Your task to perform on an android device: open the mobile data screen to see how much data has been used Image 0: 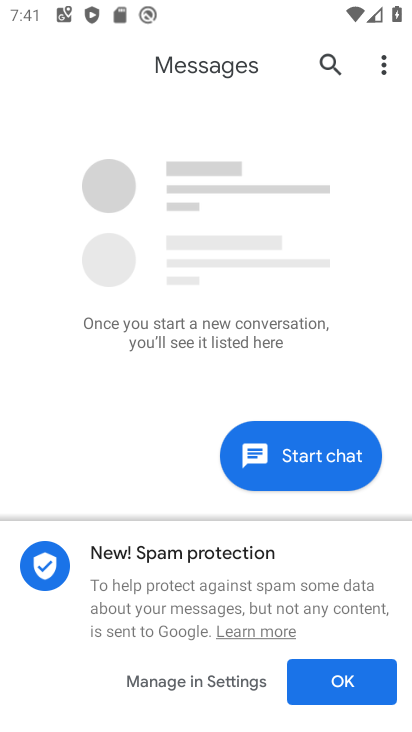
Step 0: press home button
Your task to perform on an android device: open the mobile data screen to see how much data has been used Image 1: 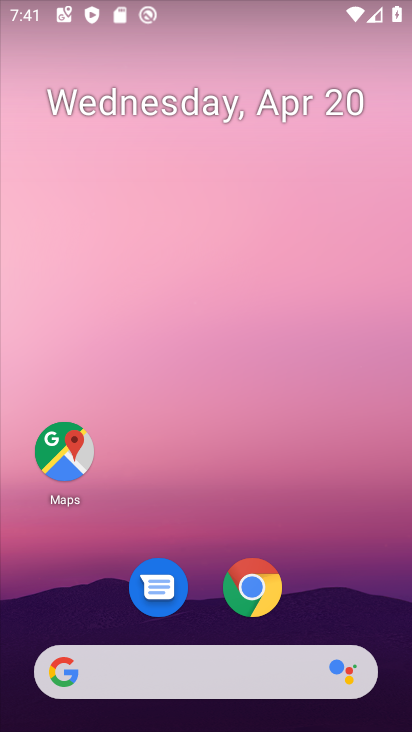
Step 1: drag from (350, 590) to (353, 137)
Your task to perform on an android device: open the mobile data screen to see how much data has been used Image 2: 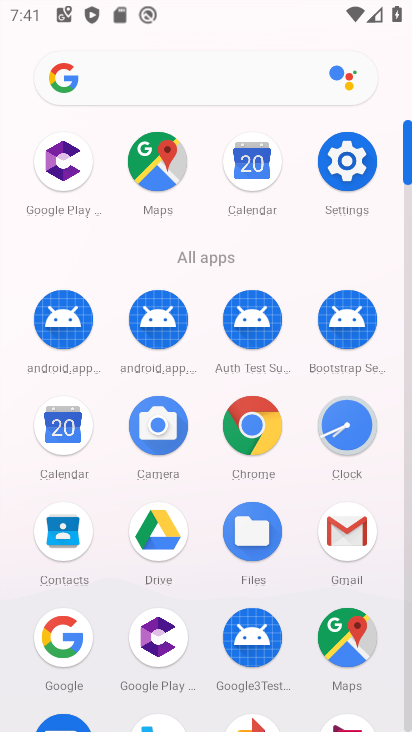
Step 2: click (342, 158)
Your task to perform on an android device: open the mobile data screen to see how much data has been used Image 3: 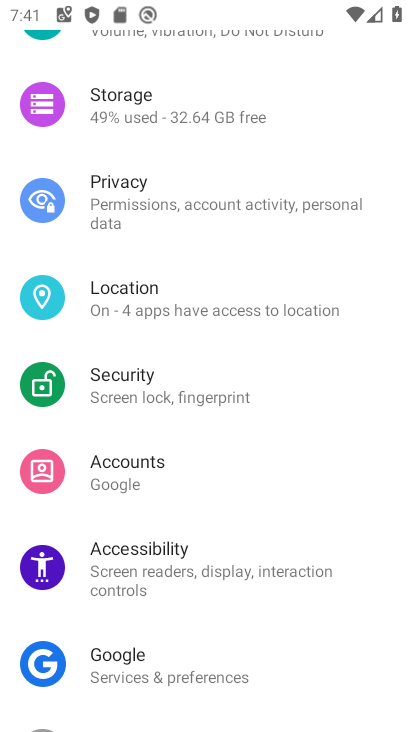
Step 3: drag from (353, 610) to (361, 402)
Your task to perform on an android device: open the mobile data screen to see how much data has been used Image 4: 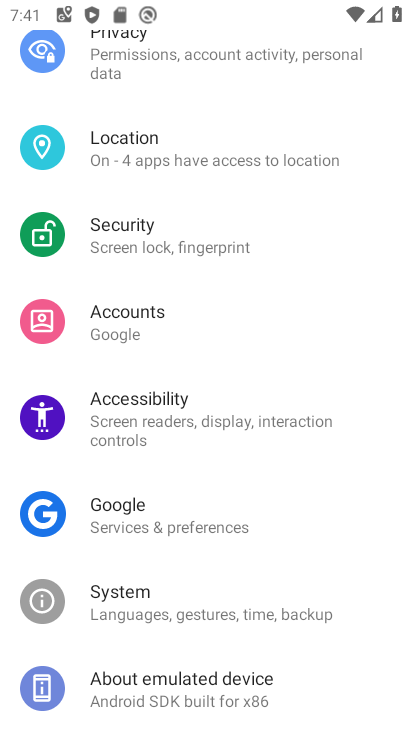
Step 4: drag from (362, 657) to (365, 405)
Your task to perform on an android device: open the mobile data screen to see how much data has been used Image 5: 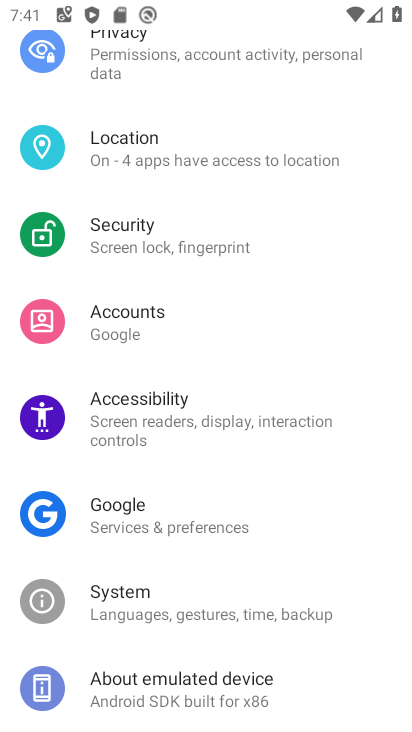
Step 5: drag from (363, 357) to (367, 540)
Your task to perform on an android device: open the mobile data screen to see how much data has been used Image 6: 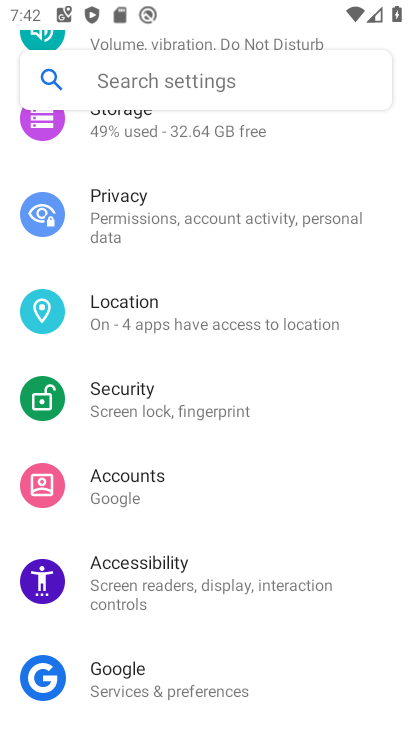
Step 6: drag from (374, 387) to (364, 546)
Your task to perform on an android device: open the mobile data screen to see how much data has been used Image 7: 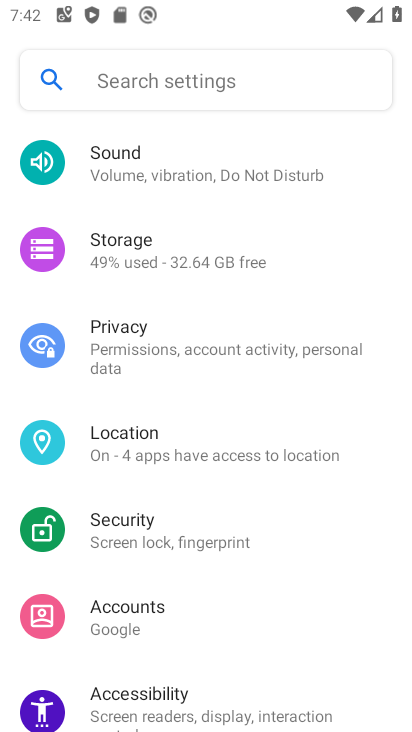
Step 7: drag from (383, 308) to (364, 502)
Your task to perform on an android device: open the mobile data screen to see how much data has been used Image 8: 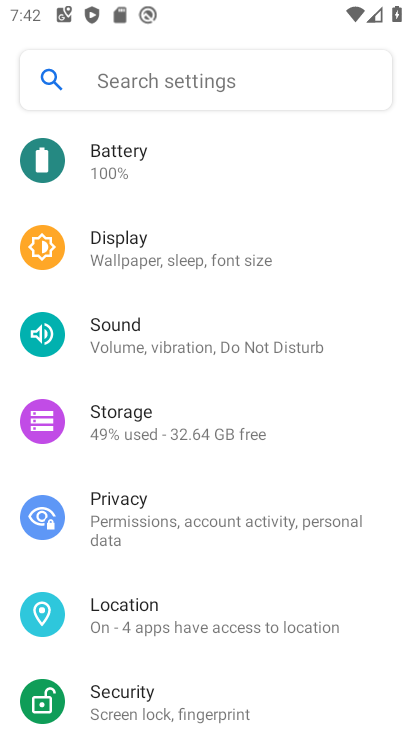
Step 8: drag from (382, 322) to (375, 469)
Your task to perform on an android device: open the mobile data screen to see how much data has been used Image 9: 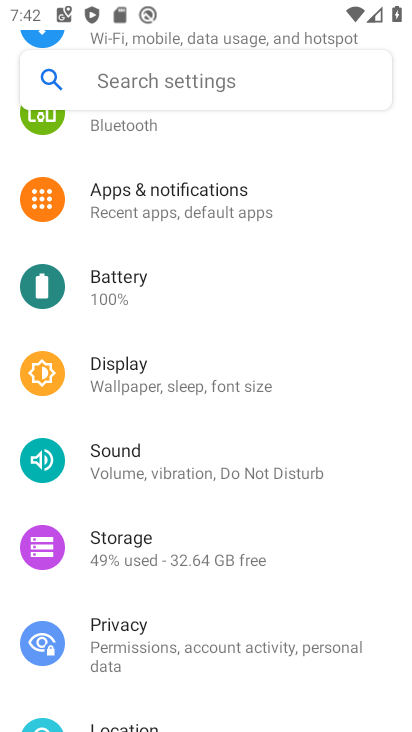
Step 9: drag from (373, 303) to (380, 459)
Your task to perform on an android device: open the mobile data screen to see how much data has been used Image 10: 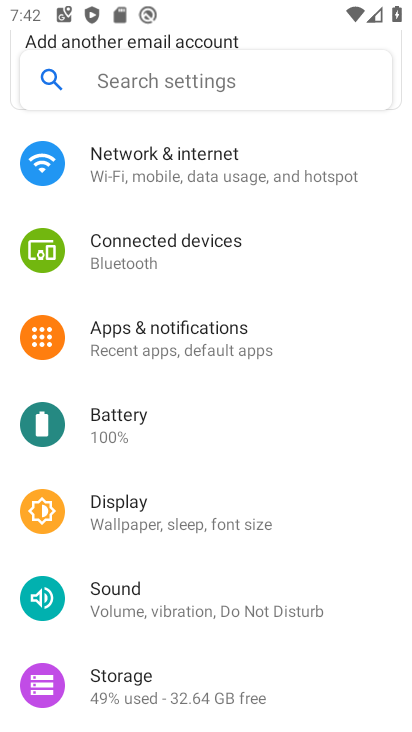
Step 10: drag from (377, 304) to (366, 522)
Your task to perform on an android device: open the mobile data screen to see how much data has been used Image 11: 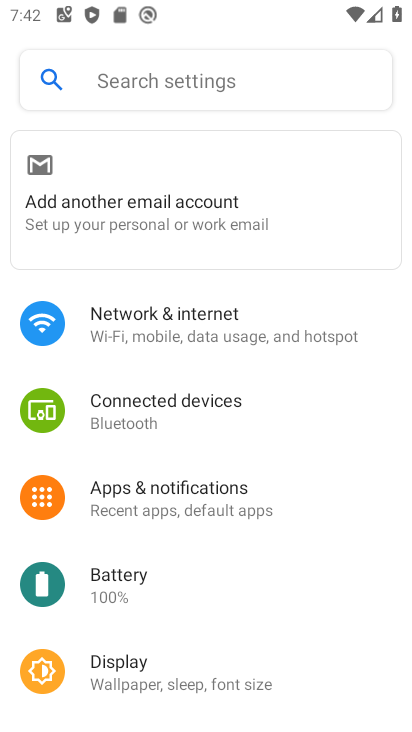
Step 11: click (254, 319)
Your task to perform on an android device: open the mobile data screen to see how much data has been used Image 12: 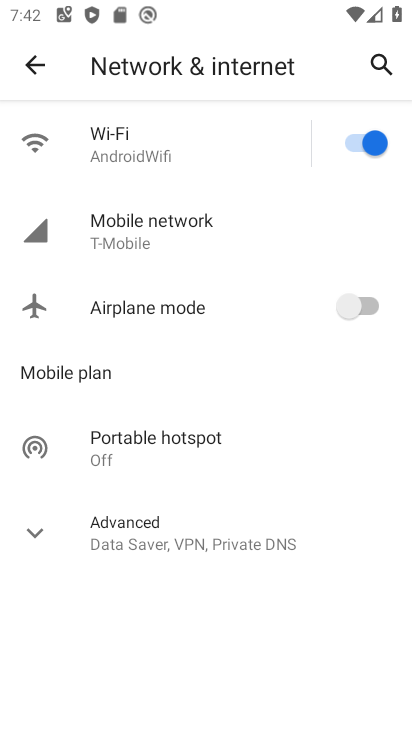
Step 12: click (175, 236)
Your task to perform on an android device: open the mobile data screen to see how much data has been used Image 13: 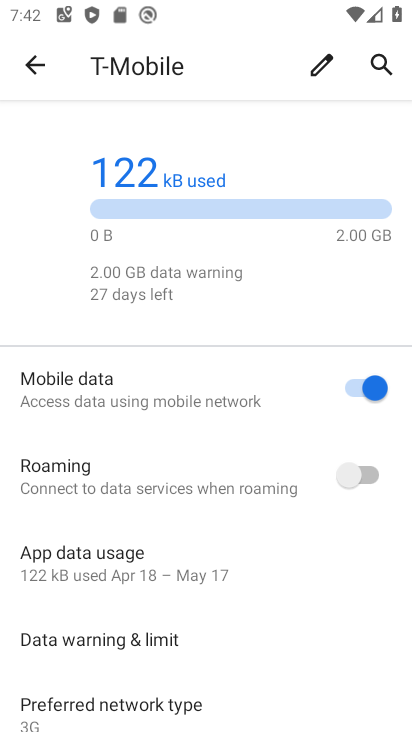
Step 13: drag from (276, 584) to (266, 346)
Your task to perform on an android device: open the mobile data screen to see how much data has been used Image 14: 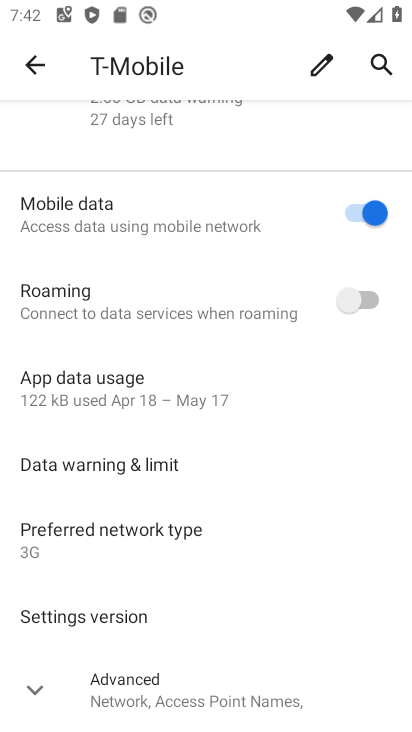
Step 14: click (147, 393)
Your task to perform on an android device: open the mobile data screen to see how much data has been used Image 15: 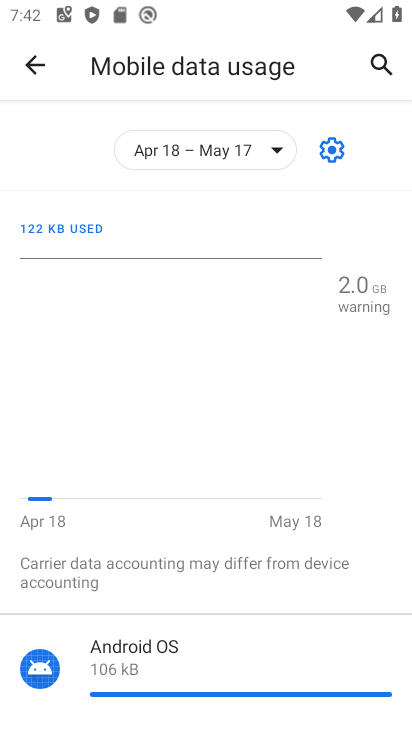
Step 15: task complete